Your task to perform on an android device: Open battery settings Image 0: 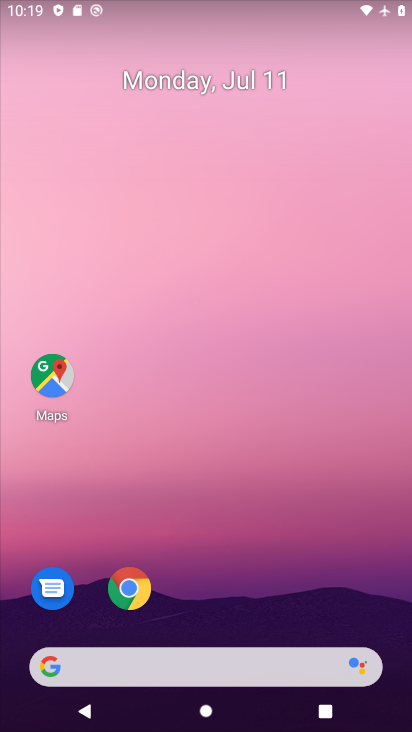
Step 0: drag from (166, 660) to (293, 193)
Your task to perform on an android device: Open battery settings Image 1: 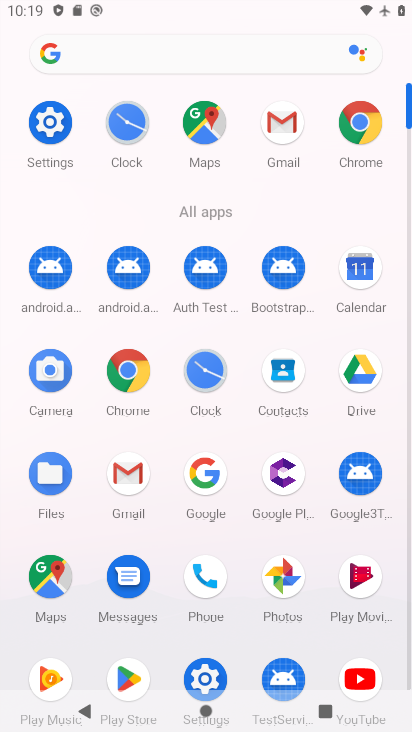
Step 1: click (49, 124)
Your task to perform on an android device: Open battery settings Image 2: 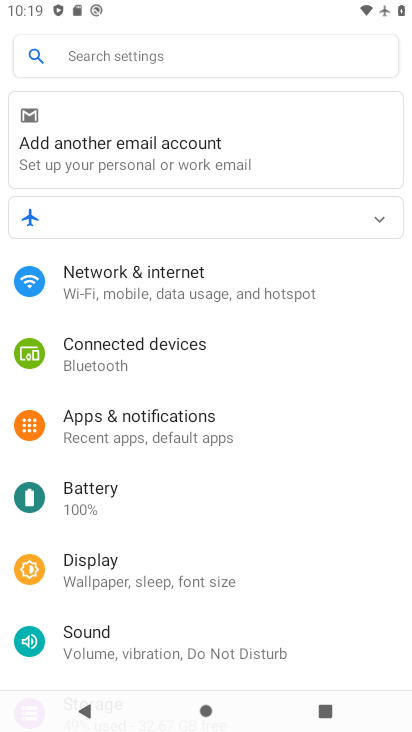
Step 2: click (98, 493)
Your task to perform on an android device: Open battery settings Image 3: 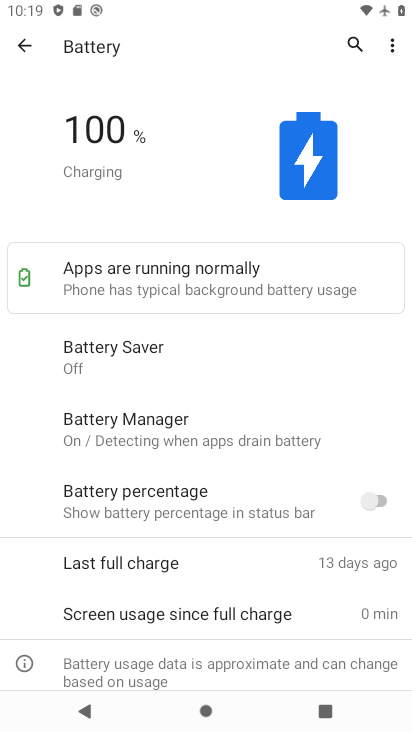
Step 3: task complete